Your task to perform on an android device: check battery use Image 0: 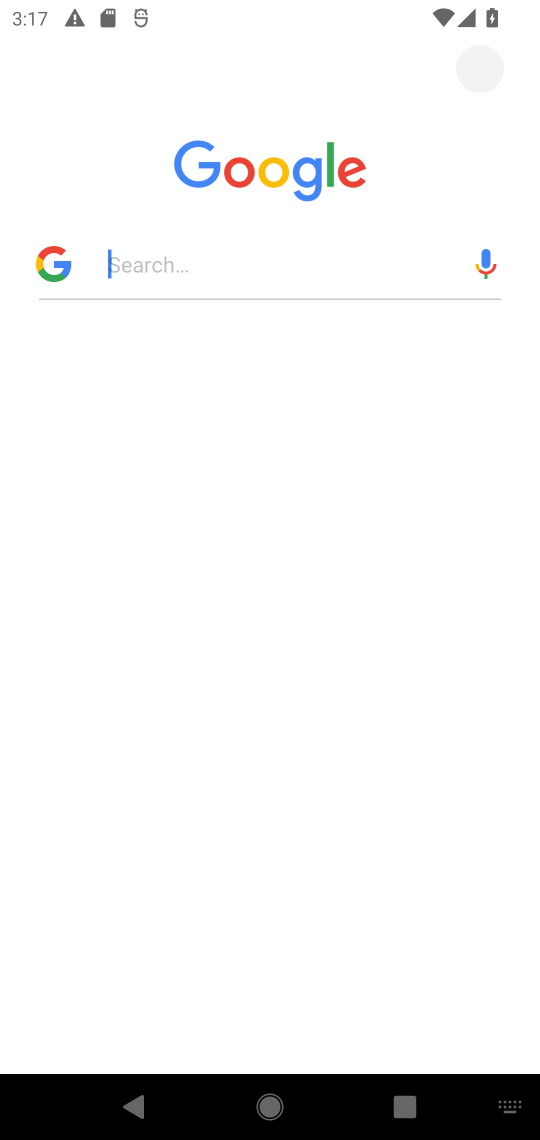
Step 0: press home button
Your task to perform on an android device: check battery use Image 1: 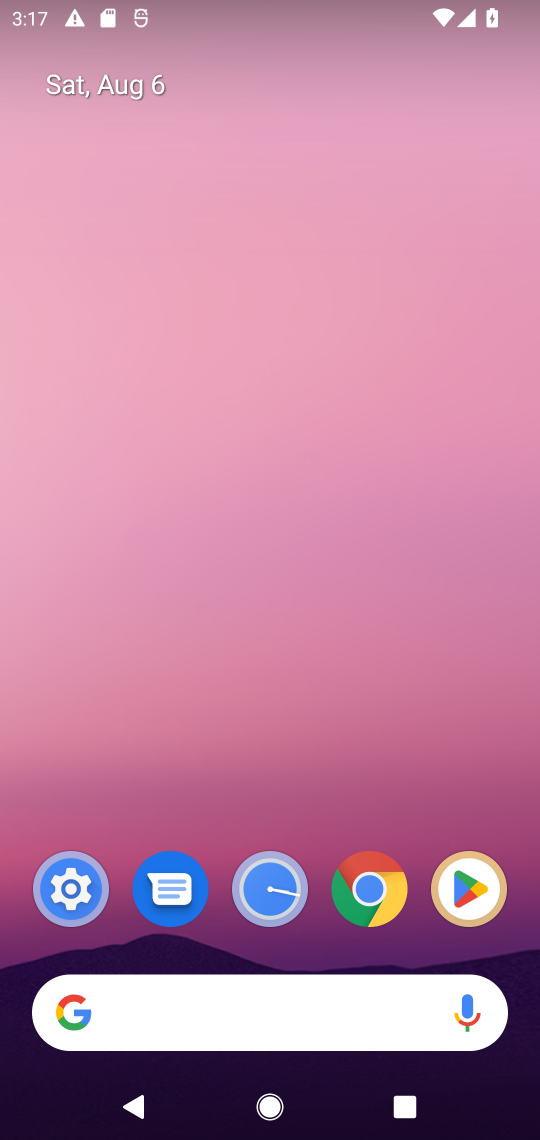
Step 1: drag from (322, 923) to (386, 135)
Your task to perform on an android device: check battery use Image 2: 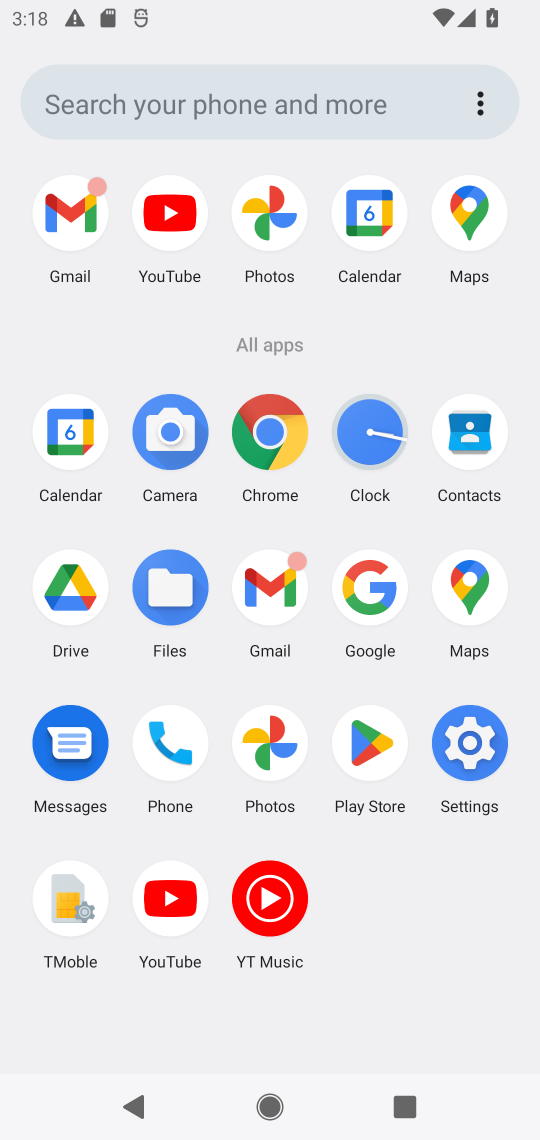
Step 2: click (460, 737)
Your task to perform on an android device: check battery use Image 3: 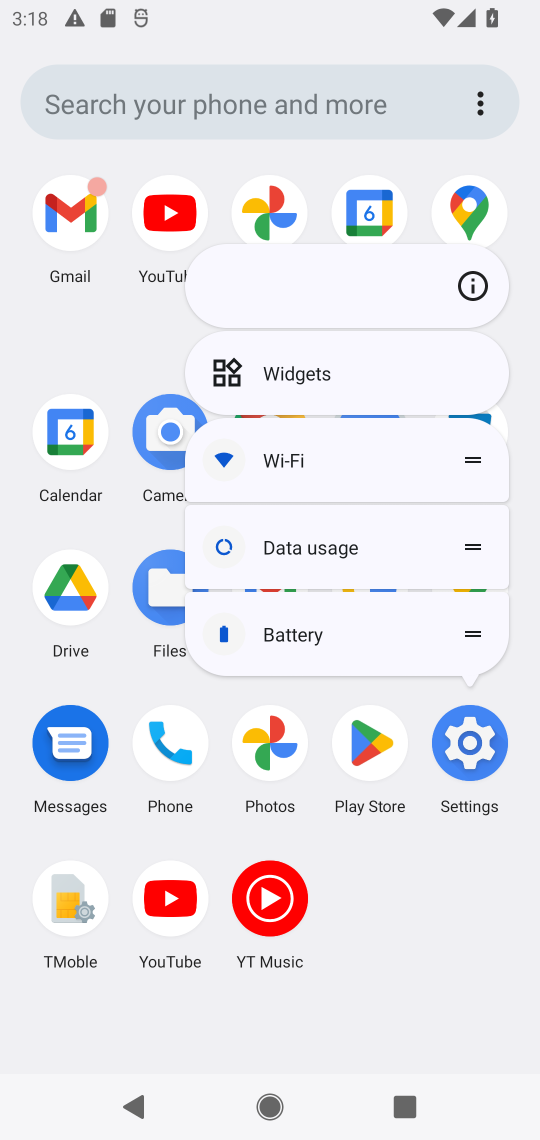
Step 3: click (470, 719)
Your task to perform on an android device: check battery use Image 4: 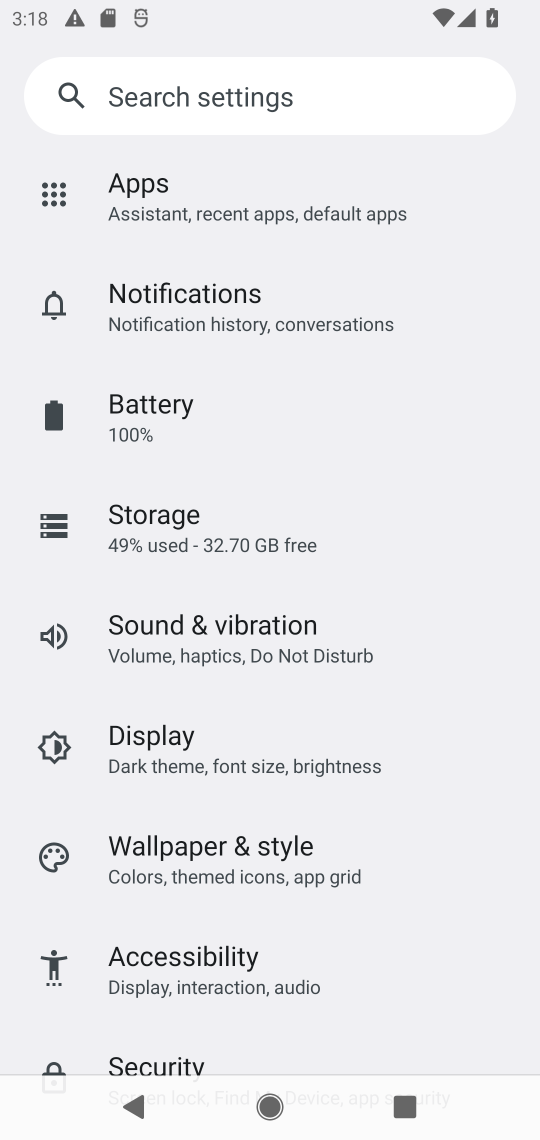
Step 4: click (161, 414)
Your task to perform on an android device: check battery use Image 5: 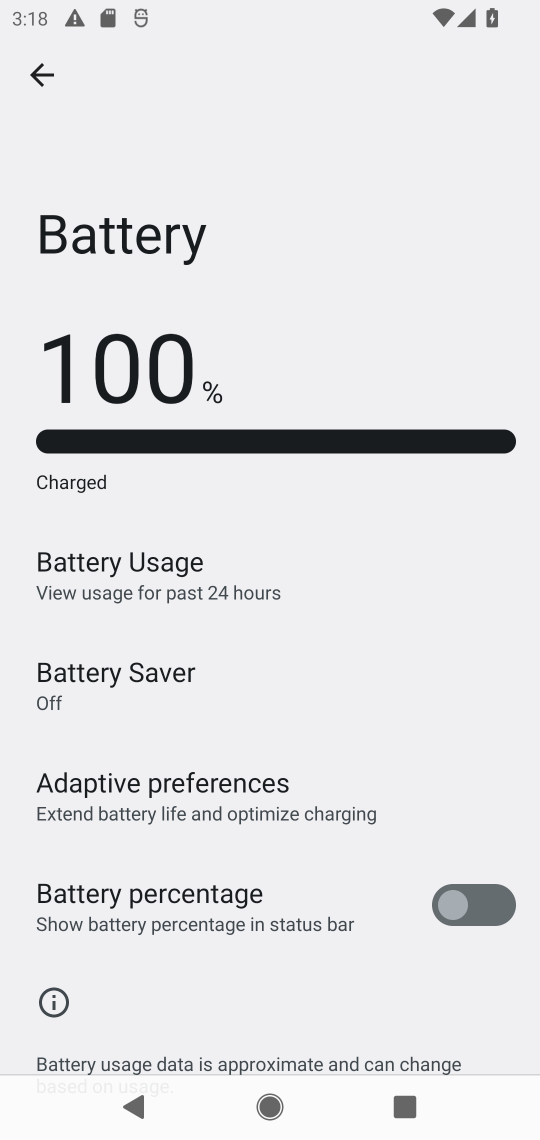
Step 5: task complete